Your task to perform on an android device: turn off notifications in google photos Image 0: 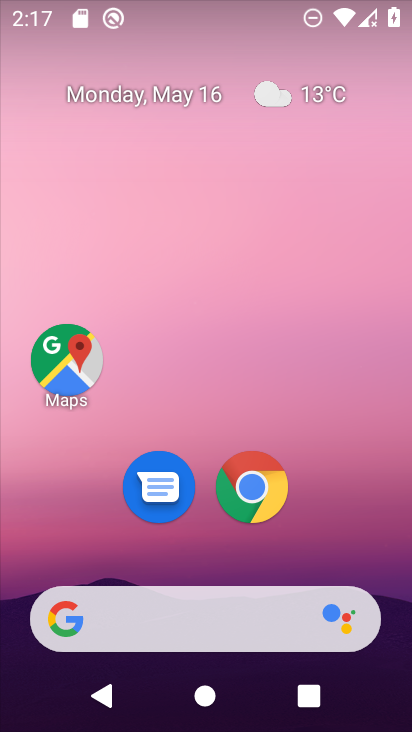
Step 0: click (385, 420)
Your task to perform on an android device: turn off notifications in google photos Image 1: 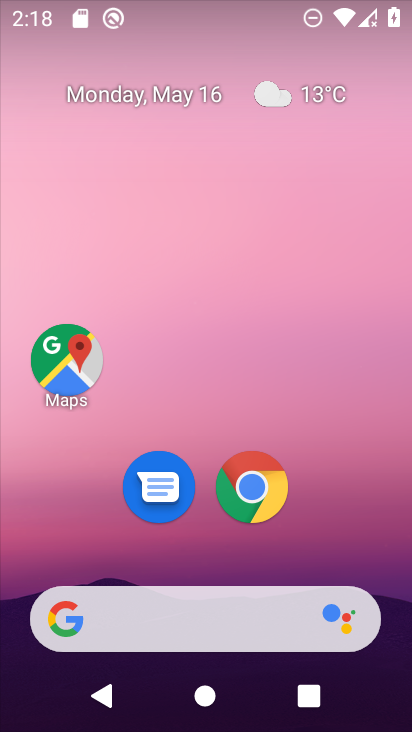
Step 1: drag from (400, 625) to (379, 225)
Your task to perform on an android device: turn off notifications in google photos Image 2: 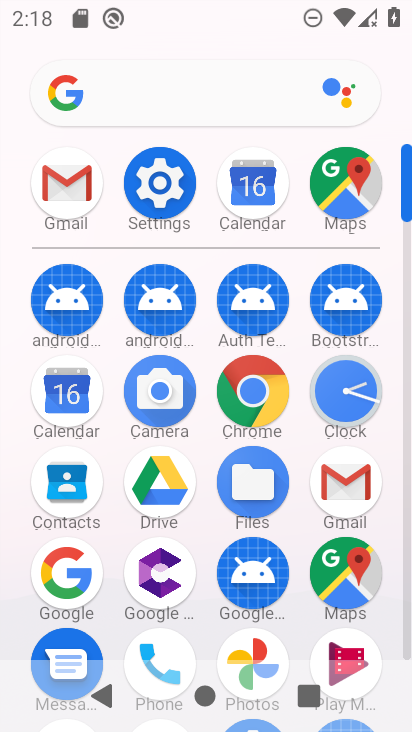
Step 2: click (248, 643)
Your task to perform on an android device: turn off notifications in google photos Image 3: 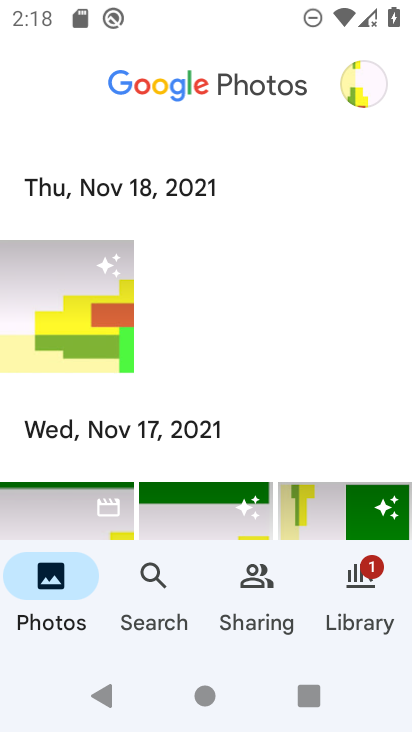
Step 3: click (346, 82)
Your task to perform on an android device: turn off notifications in google photos Image 4: 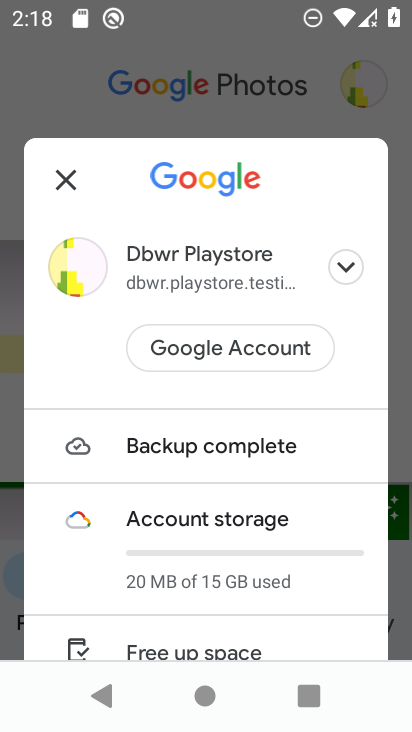
Step 4: drag from (245, 579) to (212, 253)
Your task to perform on an android device: turn off notifications in google photos Image 5: 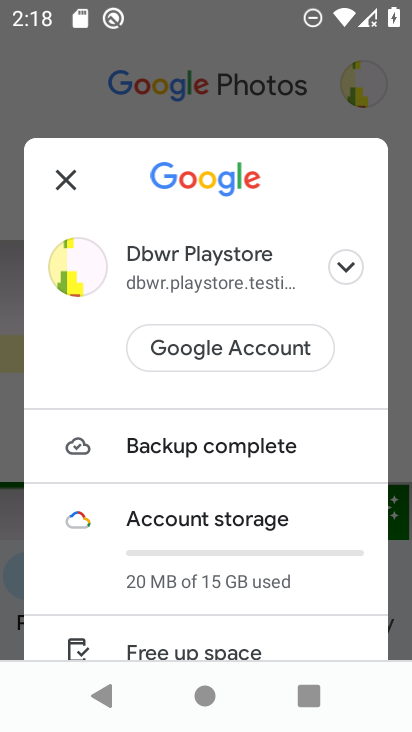
Step 5: drag from (186, 597) to (181, 347)
Your task to perform on an android device: turn off notifications in google photos Image 6: 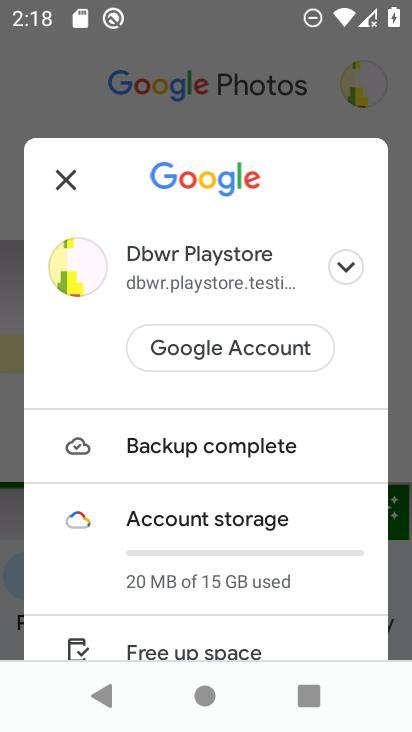
Step 6: drag from (180, 578) to (187, 321)
Your task to perform on an android device: turn off notifications in google photos Image 7: 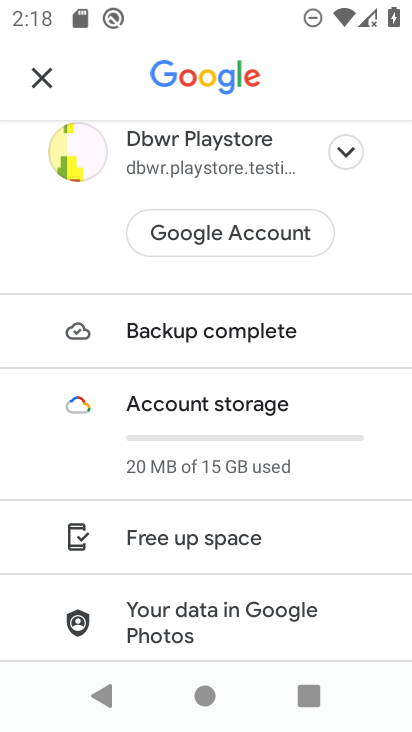
Step 7: click (349, 142)
Your task to perform on an android device: turn off notifications in google photos Image 8: 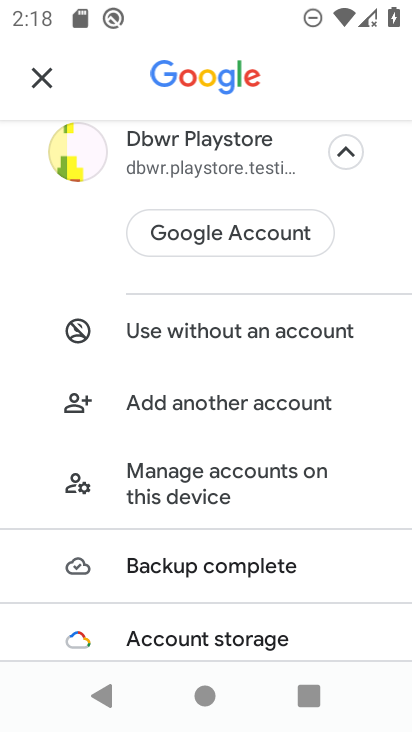
Step 8: task complete